Your task to perform on an android device: find which apps use the phone's location Image 0: 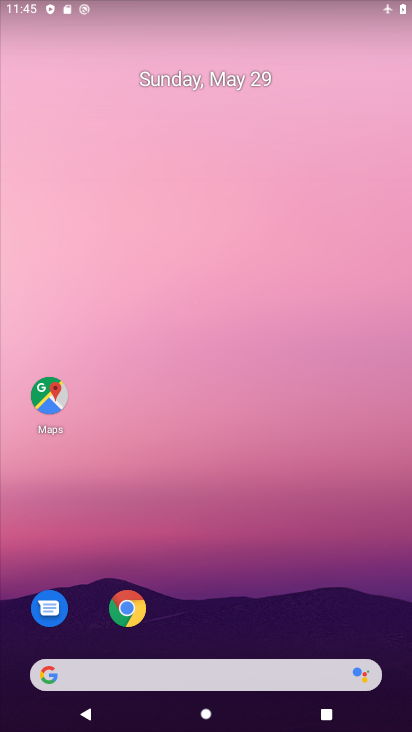
Step 0: drag from (241, 646) to (17, 185)
Your task to perform on an android device: find which apps use the phone's location Image 1: 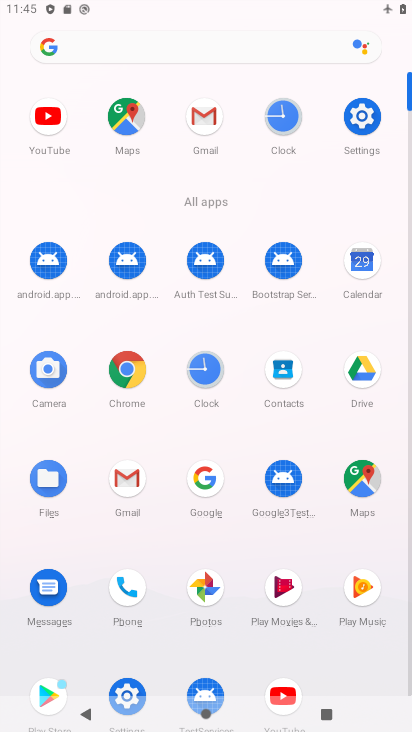
Step 1: click (348, 147)
Your task to perform on an android device: find which apps use the phone's location Image 2: 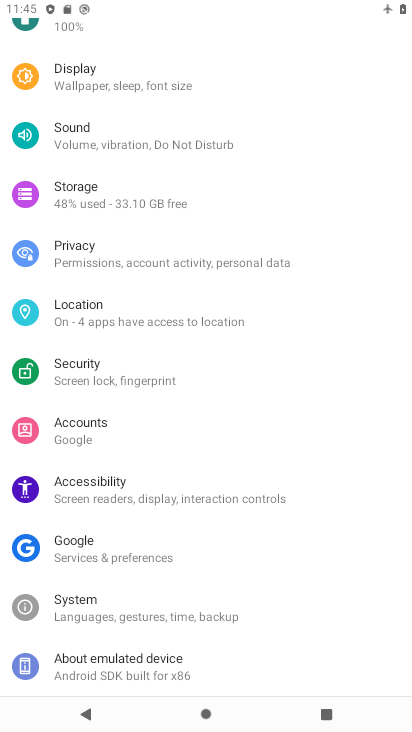
Step 2: click (56, 325)
Your task to perform on an android device: find which apps use the phone's location Image 3: 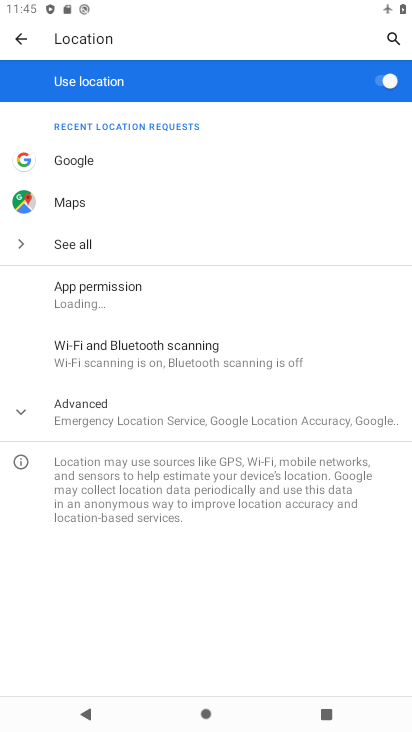
Step 3: click (40, 406)
Your task to perform on an android device: find which apps use the phone's location Image 4: 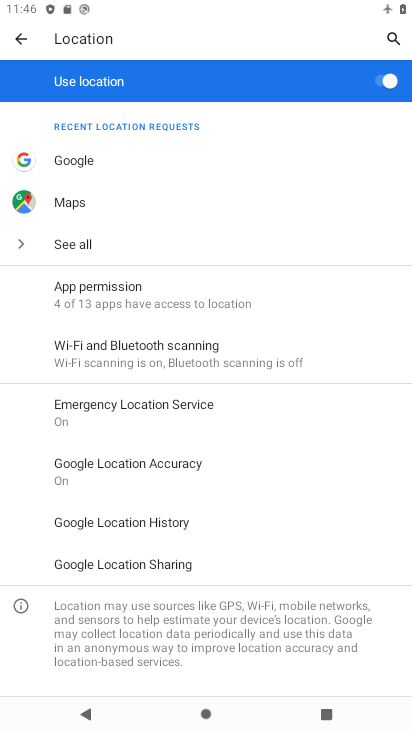
Step 4: click (92, 298)
Your task to perform on an android device: find which apps use the phone's location Image 5: 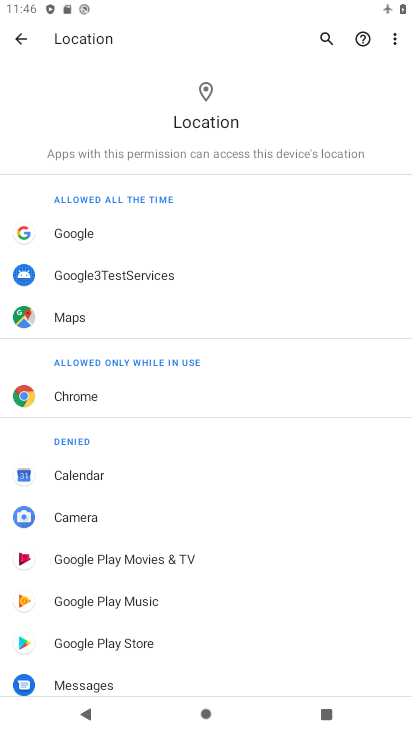
Step 5: task complete